Your task to perform on an android device: turn off priority inbox in the gmail app Image 0: 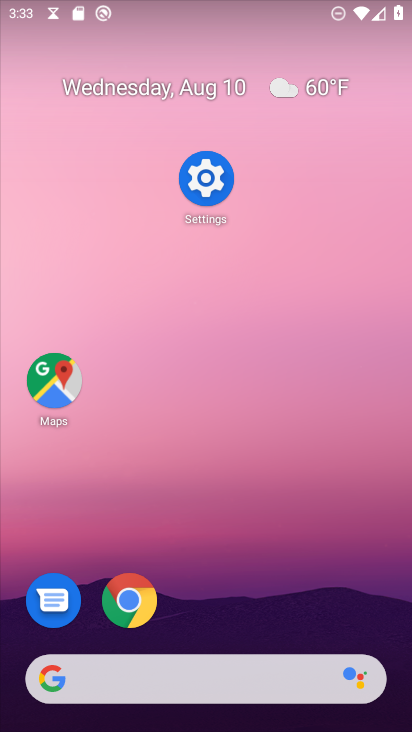
Step 0: press home button
Your task to perform on an android device: turn off priority inbox in the gmail app Image 1: 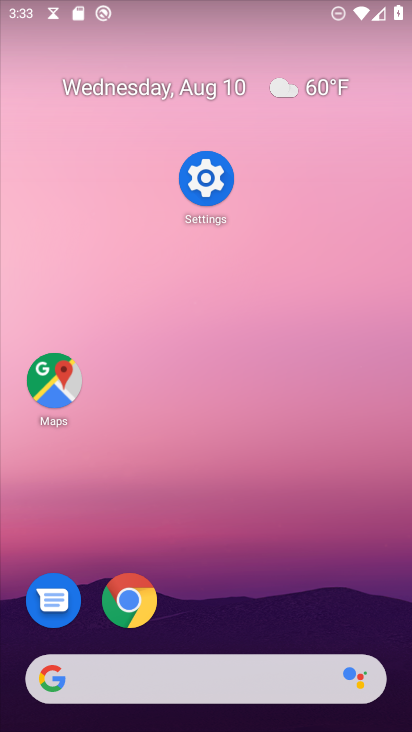
Step 1: drag from (274, 635) to (289, 0)
Your task to perform on an android device: turn off priority inbox in the gmail app Image 2: 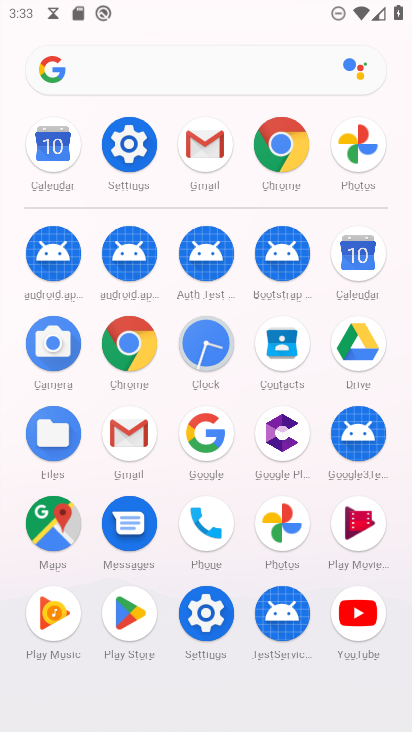
Step 2: click (201, 140)
Your task to perform on an android device: turn off priority inbox in the gmail app Image 3: 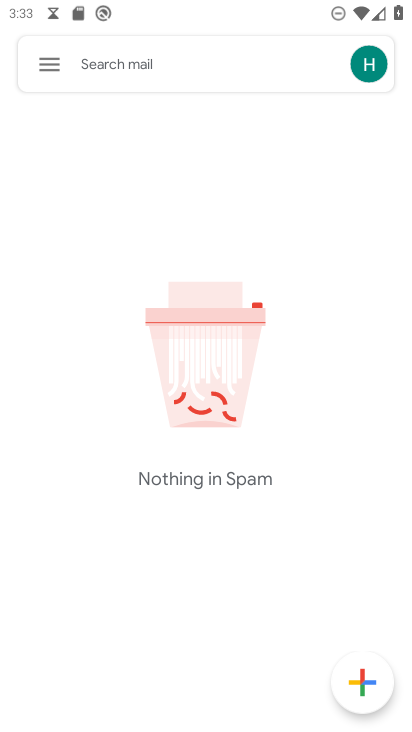
Step 3: click (37, 58)
Your task to perform on an android device: turn off priority inbox in the gmail app Image 4: 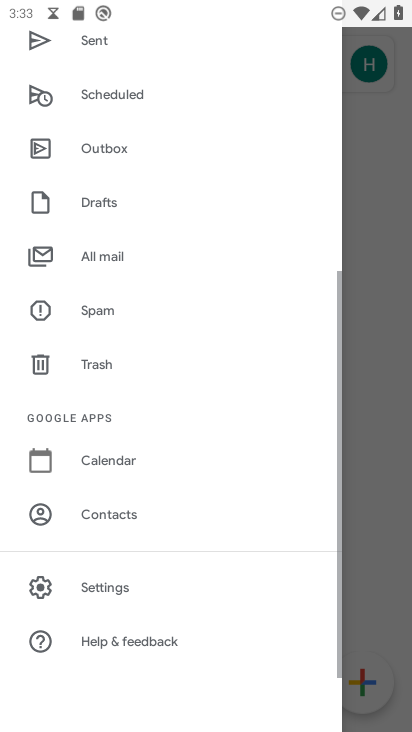
Step 4: click (122, 588)
Your task to perform on an android device: turn off priority inbox in the gmail app Image 5: 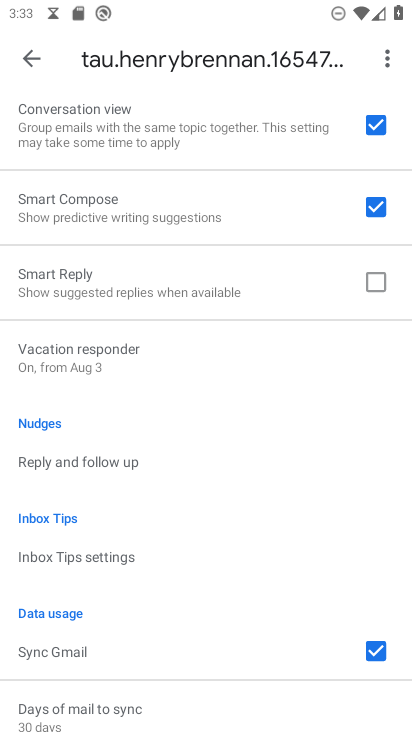
Step 5: drag from (170, 117) to (151, 665)
Your task to perform on an android device: turn off priority inbox in the gmail app Image 6: 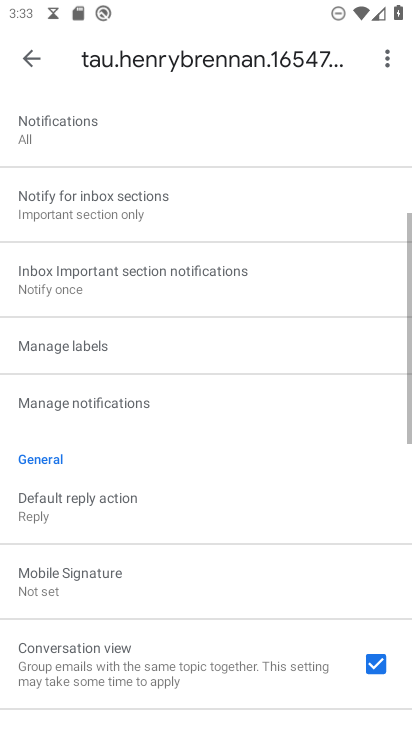
Step 6: drag from (105, 143) to (84, 712)
Your task to perform on an android device: turn off priority inbox in the gmail app Image 7: 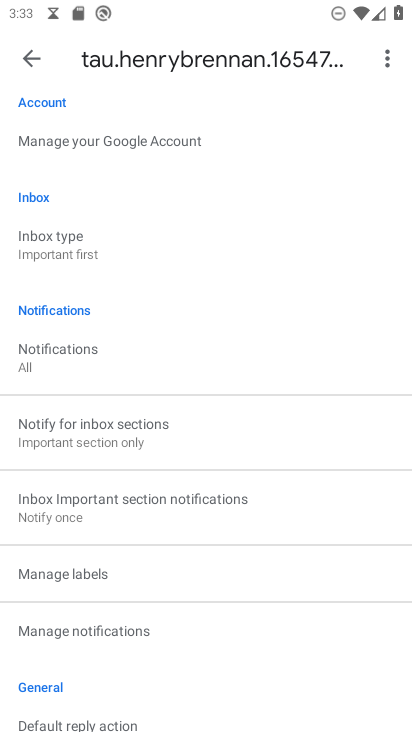
Step 7: click (63, 264)
Your task to perform on an android device: turn off priority inbox in the gmail app Image 8: 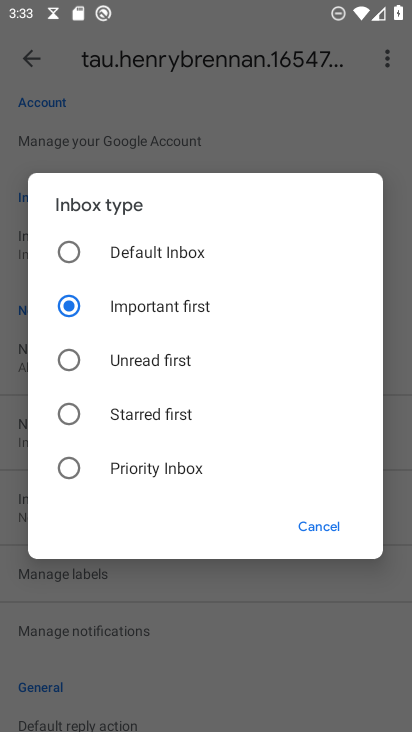
Step 8: task complete